Your task to perform on an android device: What's on my calendar tomorrow? Image 0: 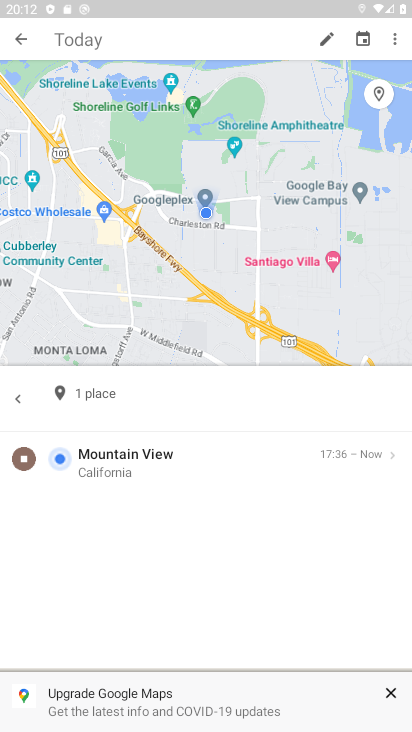
Step 0: press home button
Your task to perform on an android device: What's on my calendar tomorrow? Image 1: 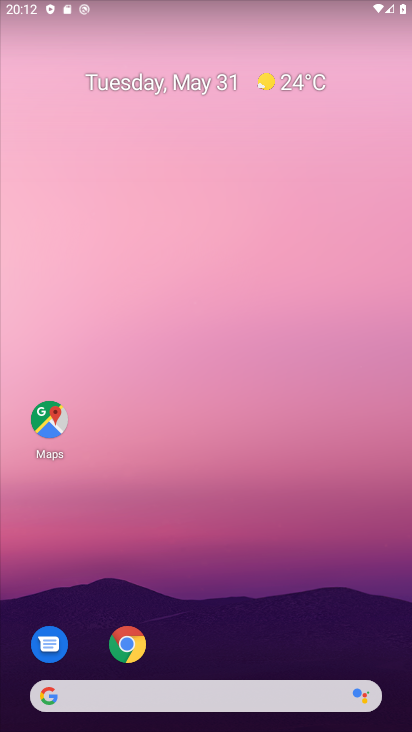
Step 1: drag from (336, 654) to (336, 270)
Your task to perform on an android device: What's on my calendar tomorrow? Image 2: 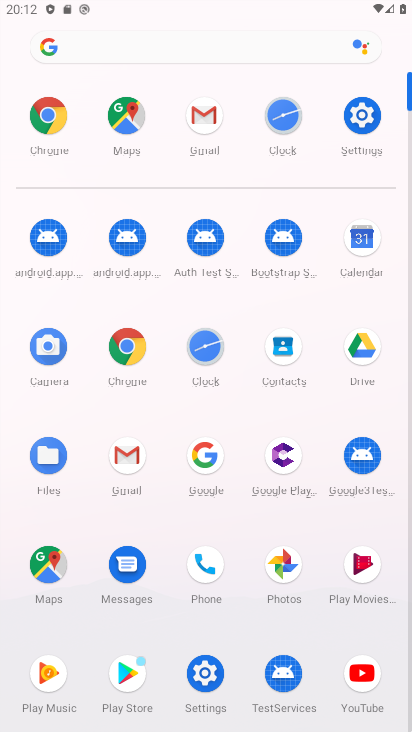
Step 2: click (376, 251)
Your task to perform on an android device: What's on my calendar tomorrow? Image 3: 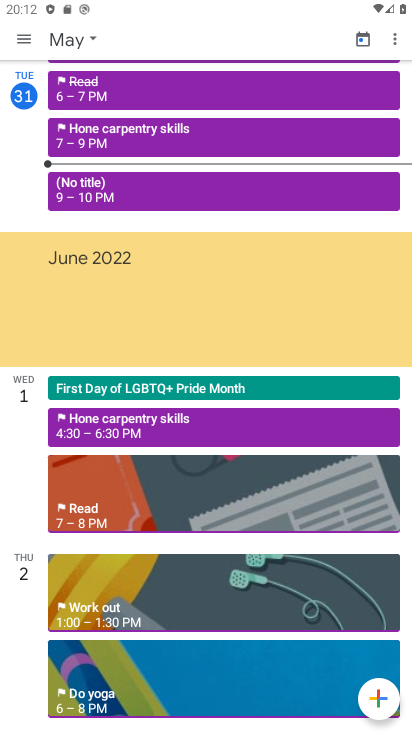
Step 3: task complete